Your task to perform on an android device: read, delete, or share a saved page in the chrome app Image 0: 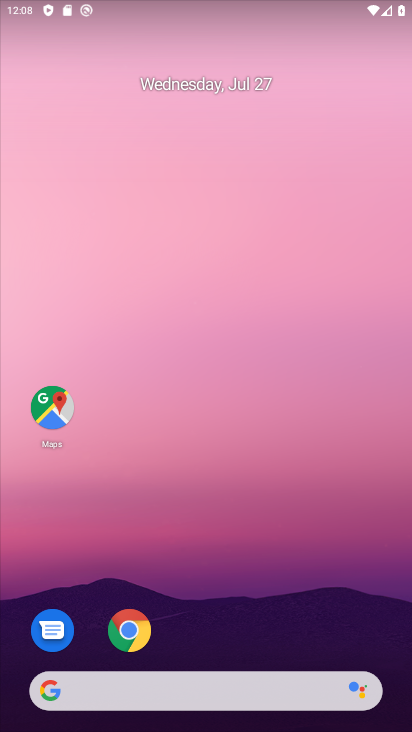
Step 0: drag from (309, 2) to (341, 65)
Your task to perform on an android device: read, delete, or share a saved page in the chrome app Image 1: 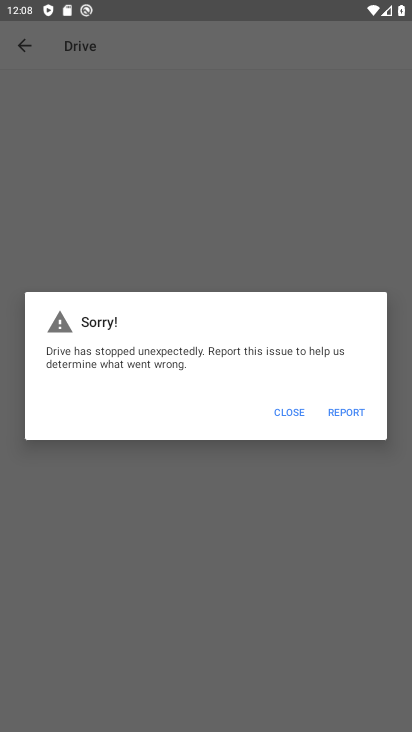
Step 1: press home button
Your task to perform on an android device: read, delete, or share a saved page in the chrome app Image 2: 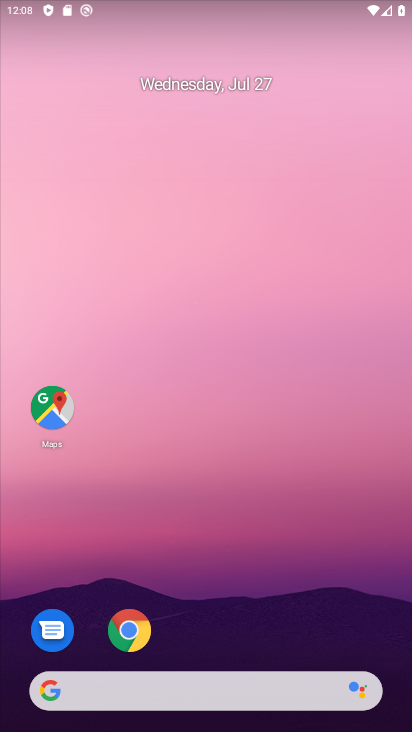
Step 2: click (129, 643)
Your task to perform on an android device: read, delete, or share a saved page in the chrome app Image 3: 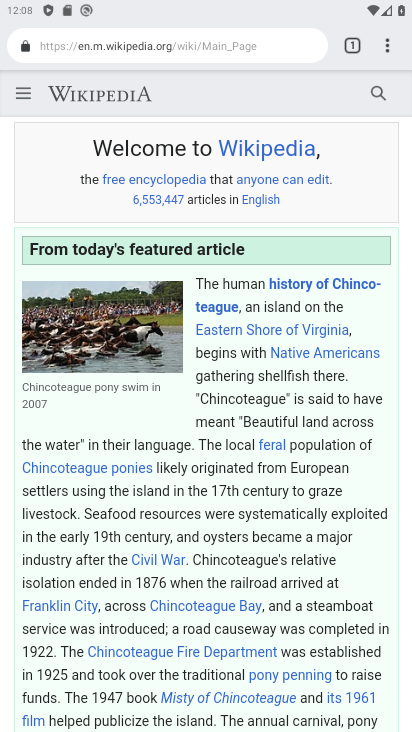
Step 3: click (388, 62)
Your task to perform on an android device: read, delete, or share a saved page in the chrome app Image 4: 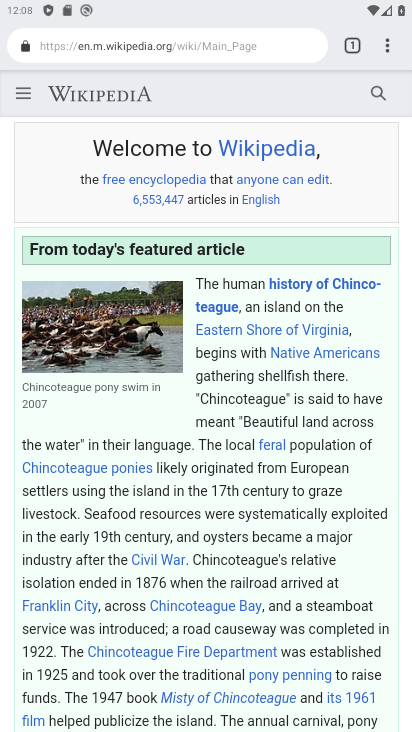
Step 4: click (386, 45)
Your task to perform on an android device: read, delete, or share a saved page in the chrome app Image 5: 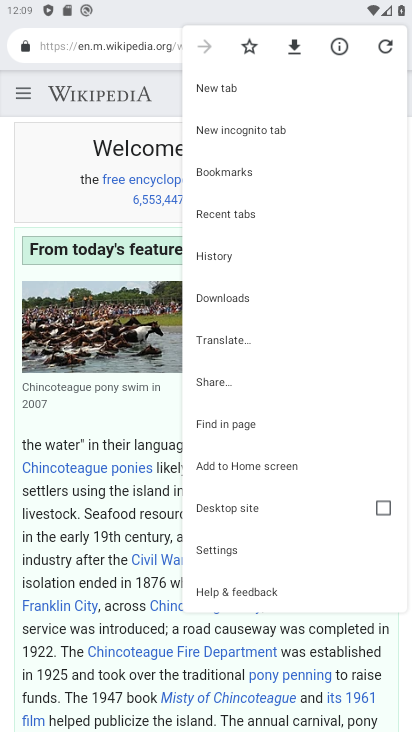
Step 5: click (238, 299)
Your task to perform on an android device: read, delete, or share a saved page in the chrome app Image 6: 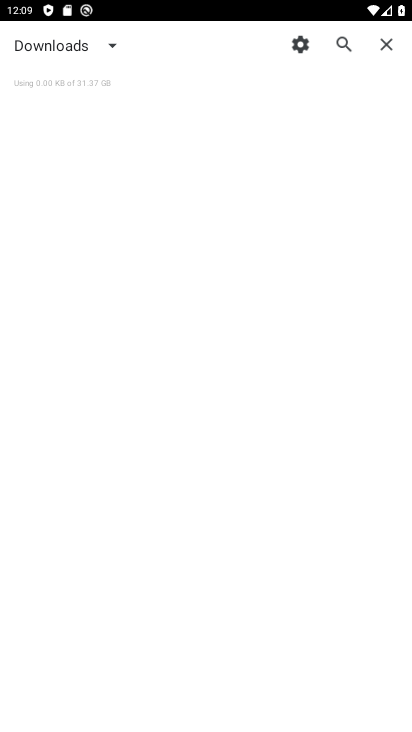
Step 6: task complete